Your task to perform on an android device: toggle wifi Image 0: 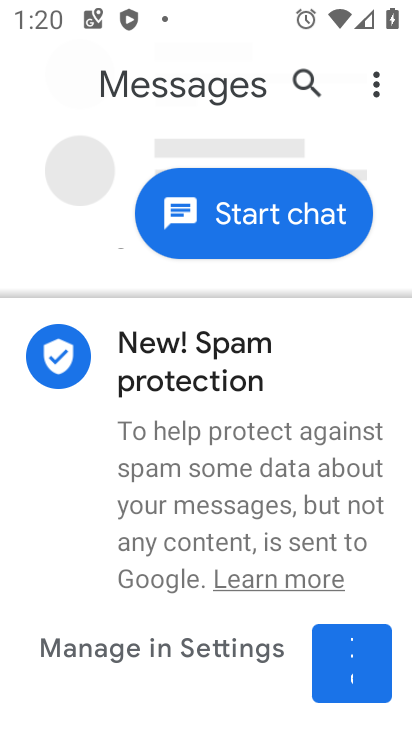
Step 0: press home button
Your task to perform on an android device: toggle wifi Image 1: 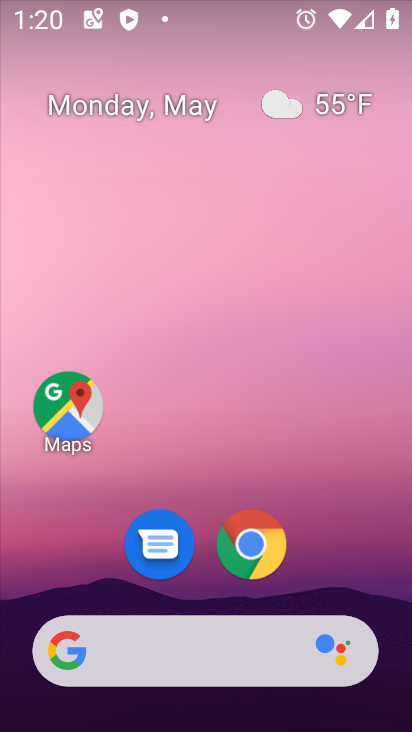
Step 1: drag from (394, 636) to (345, 140)
Your task to perform on an android device: toggle wifi Image 2: 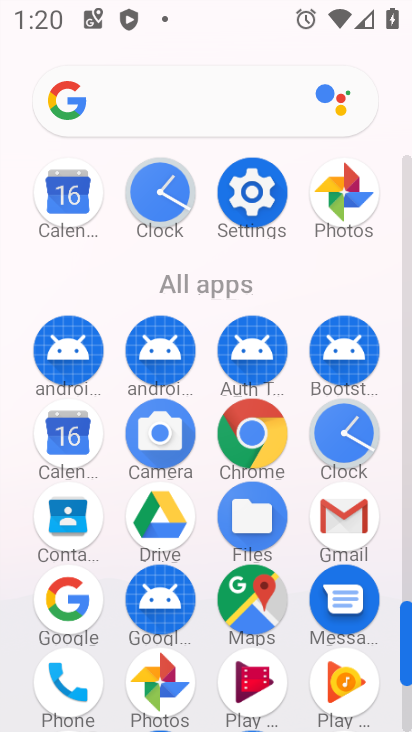
Step 2: click (408, 709)
Your task to perform on an android device: toggle wifi Image 3: 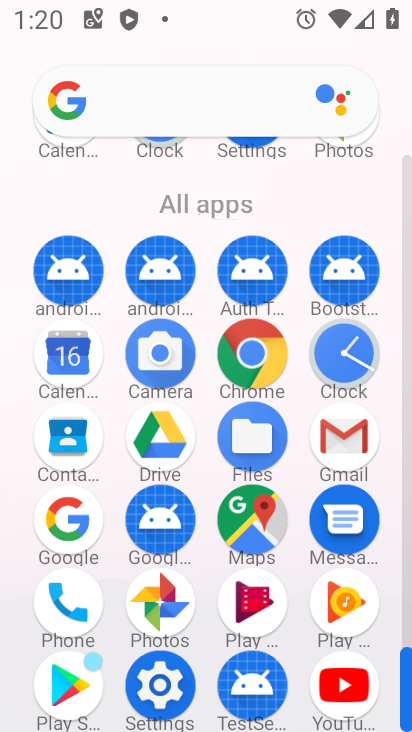
Step 3: click (158, 685)
Your task to perform on an android device: toggle wifi Image 4: 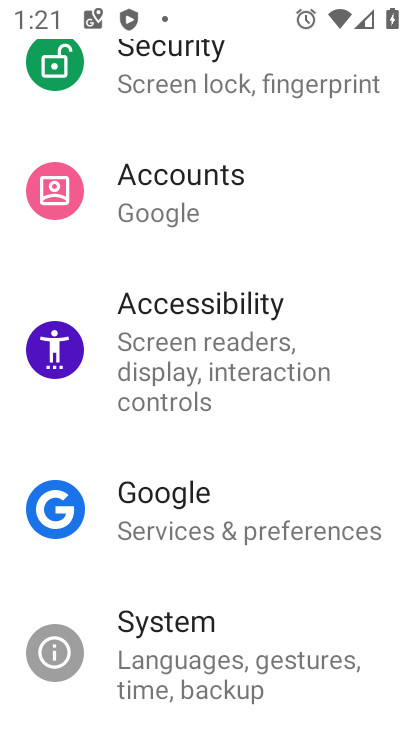
Step 4: drag from (333, 184) to (303, 324)
Your task to perform on an android device: toggle wifi Image 5: 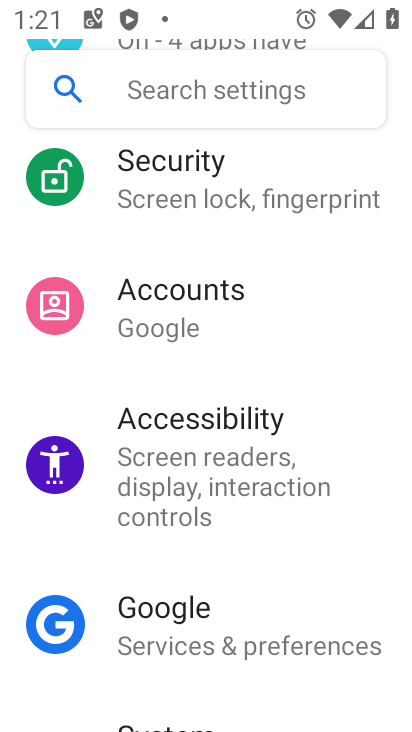
Step 5: drag from (365, 211) to (344, 476)
Your task to perform on an android device: toggle wifi Image 6: 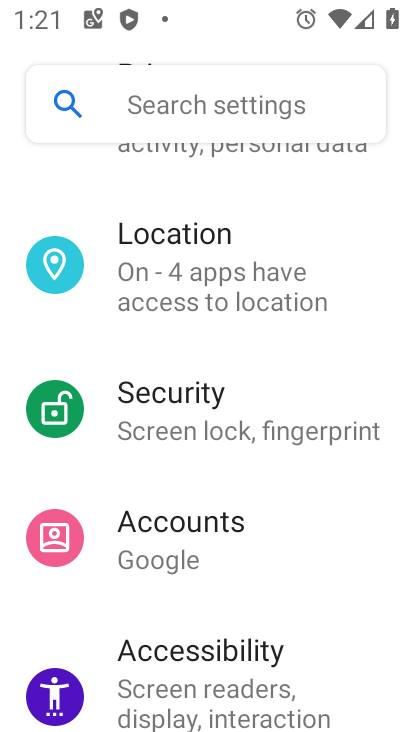
Step 6: drag from (352, 317) to (357, 600)
Your task to perform on an android device: toggle wifi Image 7: 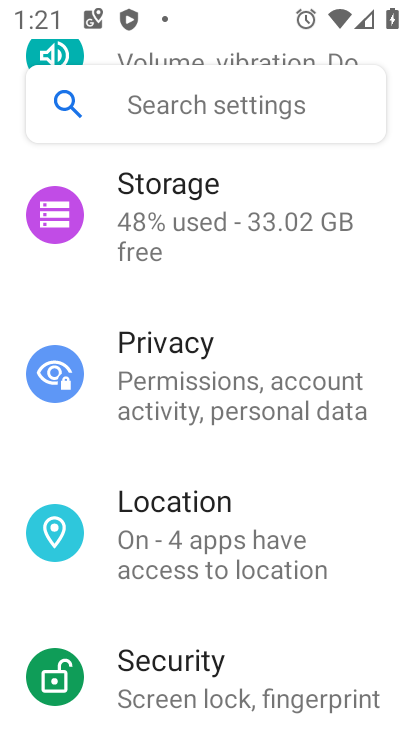
Step 7: drag from (367, 302) to (349, 610)
Your task to perform on an android device: toggle wifi Image 8: 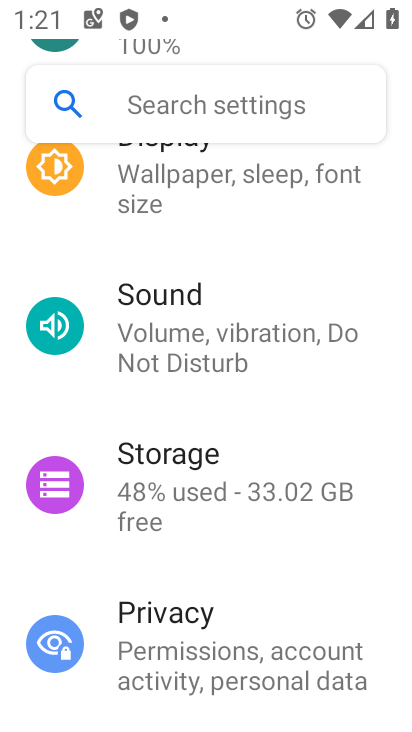
Step 8: drag from (360, 219) to (362, 563)
Your task to perform on an android device: toggle wifi Image 9: 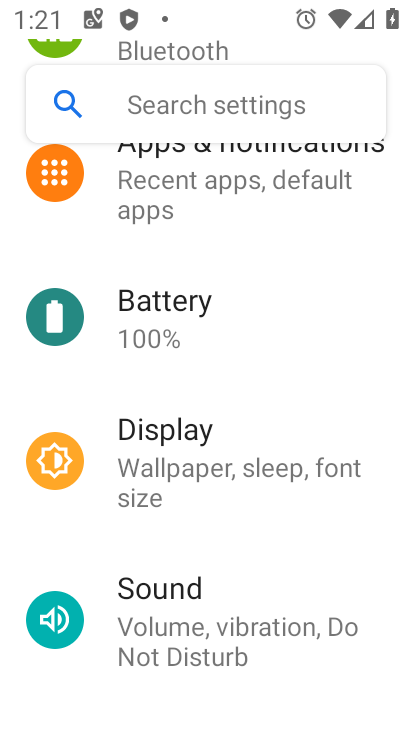
Step 9: drag from (352, 214) to (358, 564)
Your task to perform on an android device: toggle wifi Image 10: 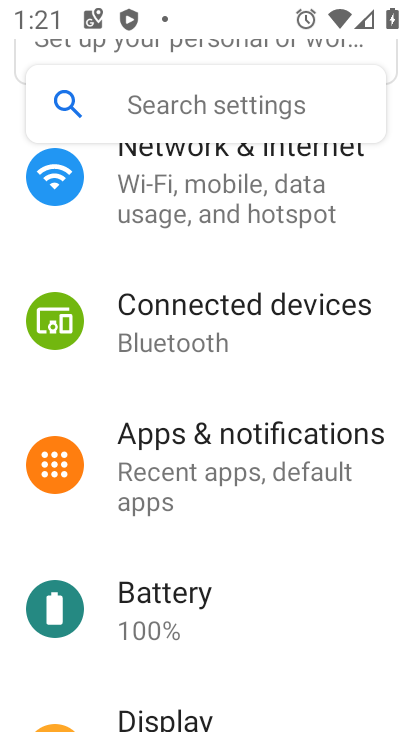
Step 10: drag from (378, 198) to (385, 534)
Your task to perform on an android device: toggle wifi Image 11: 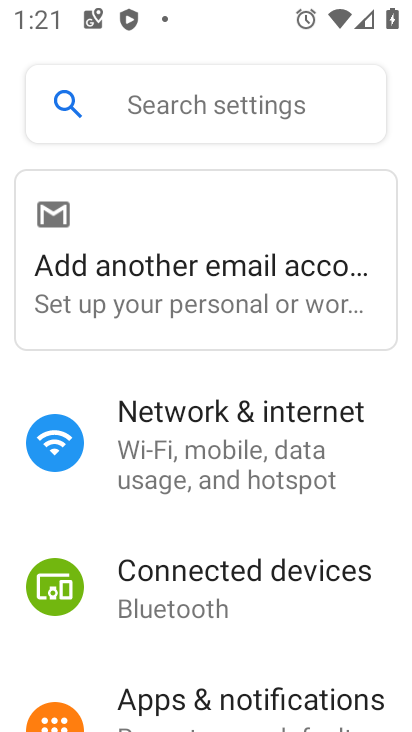
Step 11: click (112, 430)
Your task to perform on an android device: toggle wifi Image 12: 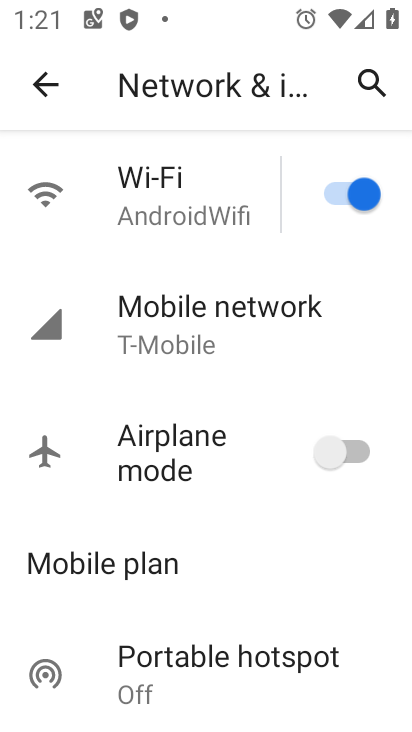
Step 12: click (327, 192)
Your task to perform on an android device: toggle wifi Image 13: 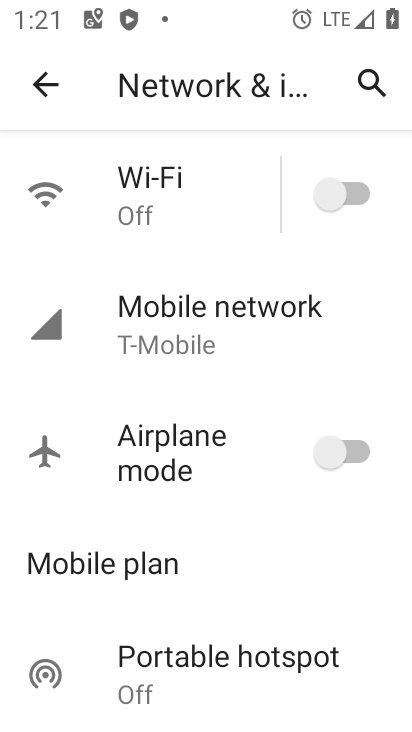
Step 13: task complete